Your task to perform on an android device: What's the weather today? Image 0: 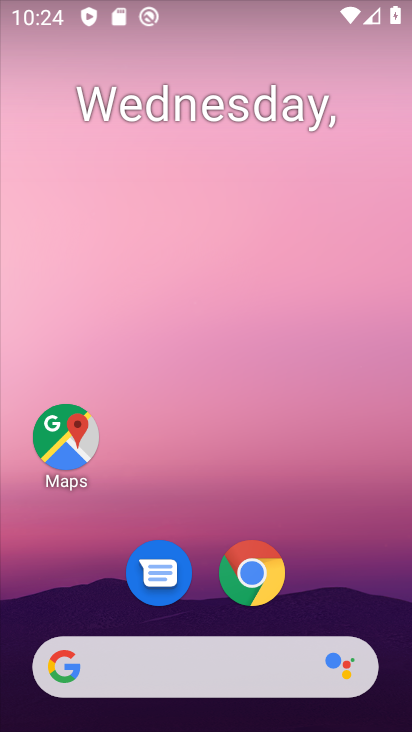
Step 0: click (373, 201)
Your task to perform on an android device: What's the weather today? Image 1: 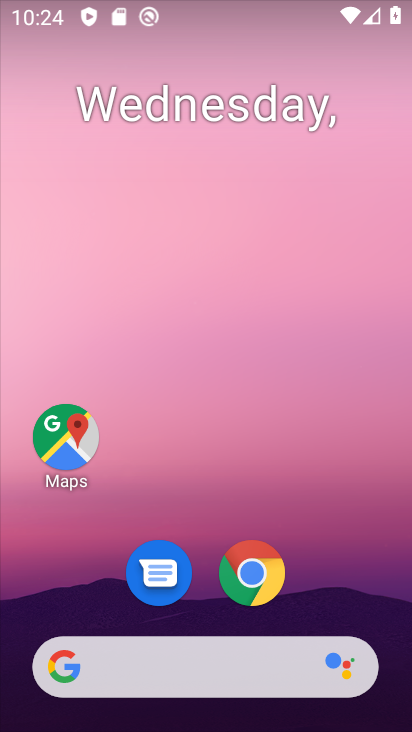
Step 1: drag from (393, 611) to (388, 190)
Your task to perform on an android device: What's the weather today? Image 2: 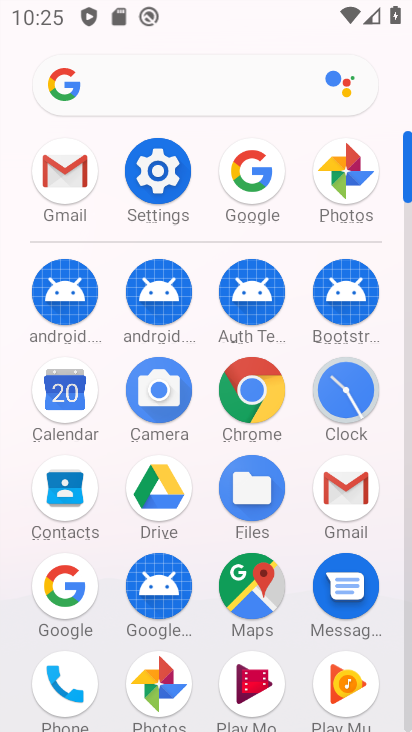
Step 2: click (62, 573)
Your task to perform on an android device: What's the weather today? Image 3: 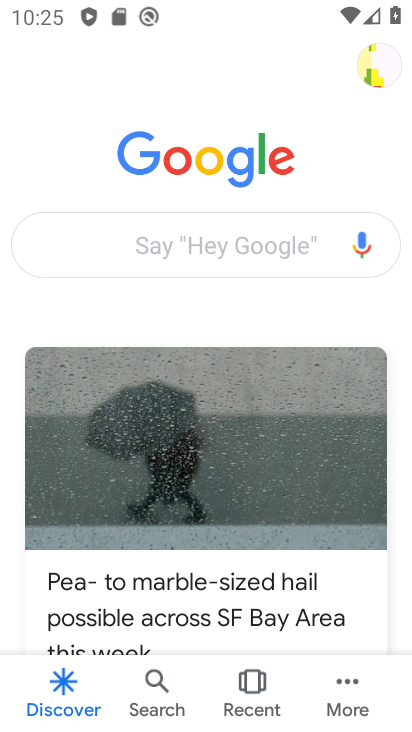
Step 3: click (337, 700)
Your task to perform on an android device: What's the weather today? Image 4: 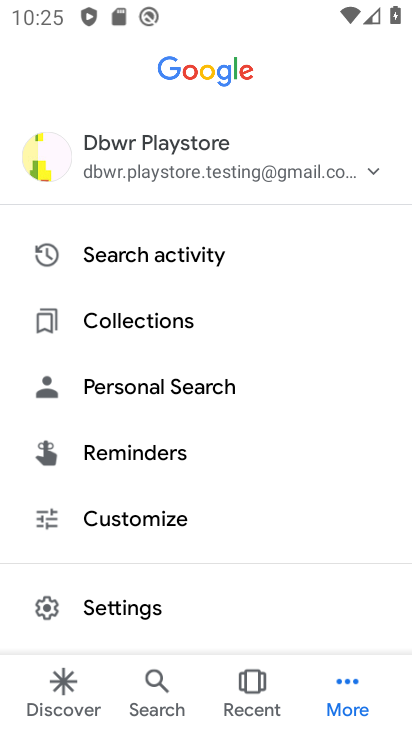
Step 4: press back button
Your task to perform on an android device: What's the weather today? Image 5: 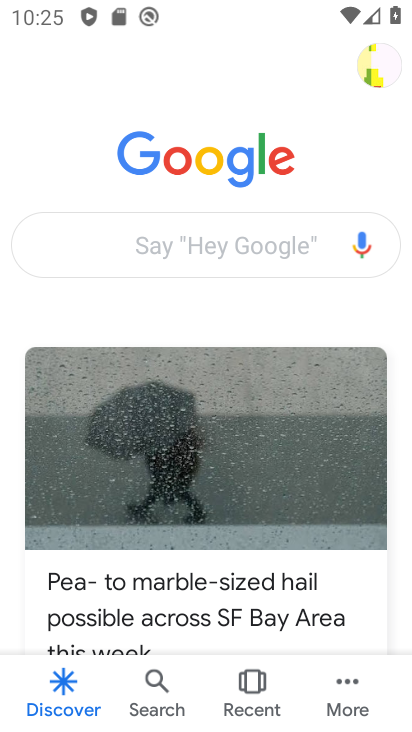
Step 5: click (249, 244)
Your task to perform on an android device: What's the weather today? Image 6: 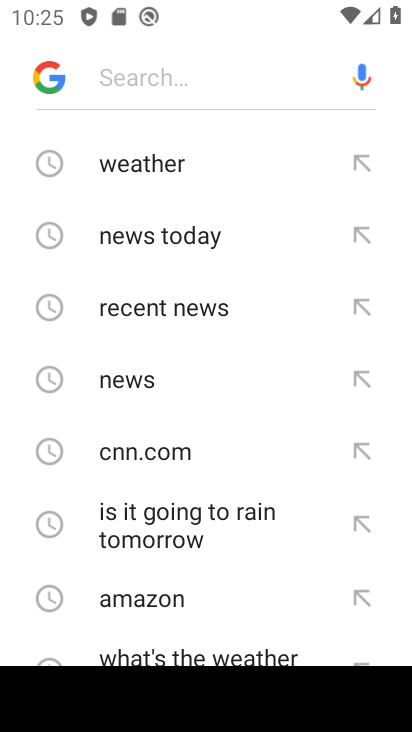
Step 6: type "weather today?"
Your task to perform on an android device: What's the weather today? Image 7: 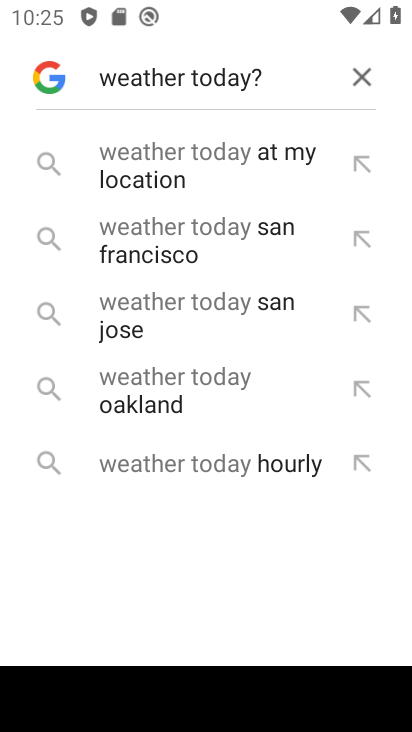
Step 7: click (186, 465)
Your task to perform on an android device: What's the weather today? Image 8: 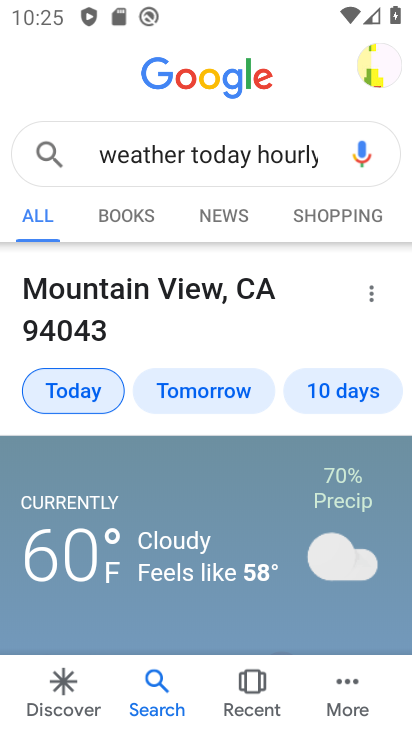
Step 8: task complete